Your task to perform on an android device: all mails in gmail Image 0: 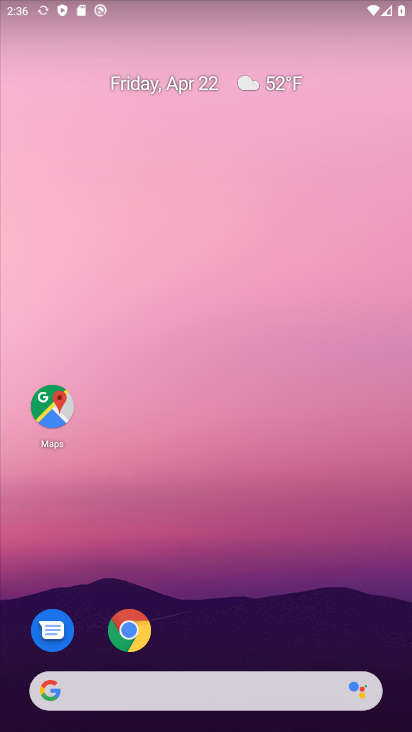
Step 0: drag from (267, 643) to (250, 116)
Your task to perform on an android device: all mails in gmail Image 1: 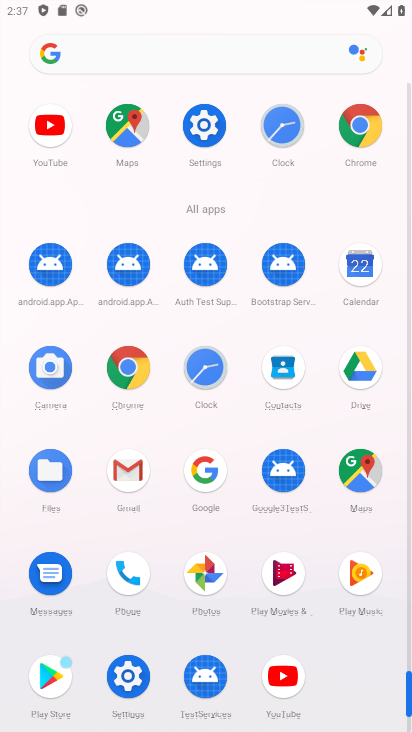
Step 1: click (123, 474)
Your task to perform on an android device: all mails in gmail Image 2: 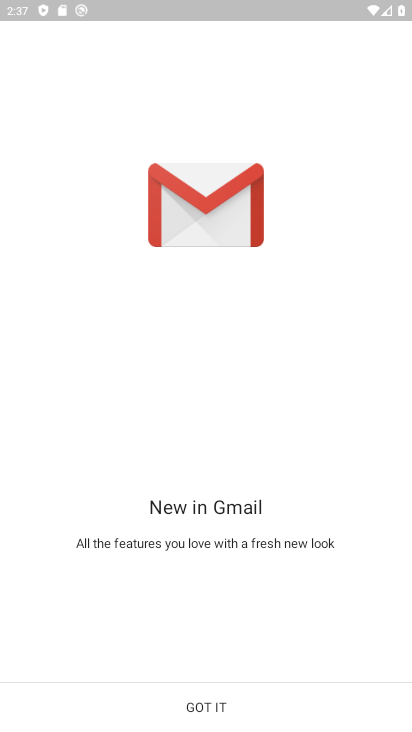
Step 2: click (192, 699)
Your task to perform on an android device: all mails in gmail Image 3: 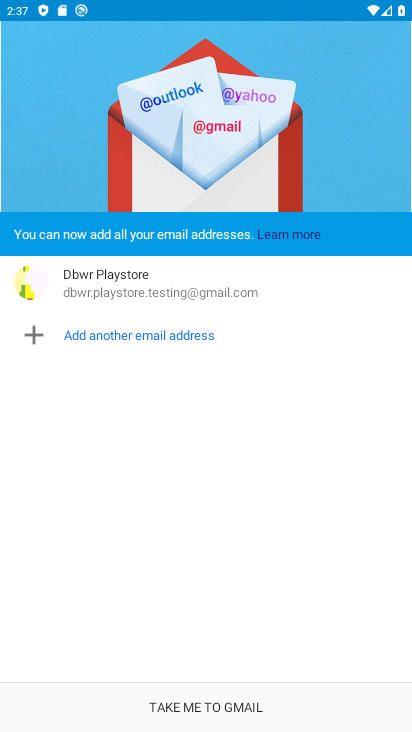
Step 3: click (192, 699)
Your task to perform on an android device: all mails in gmail Image 4: 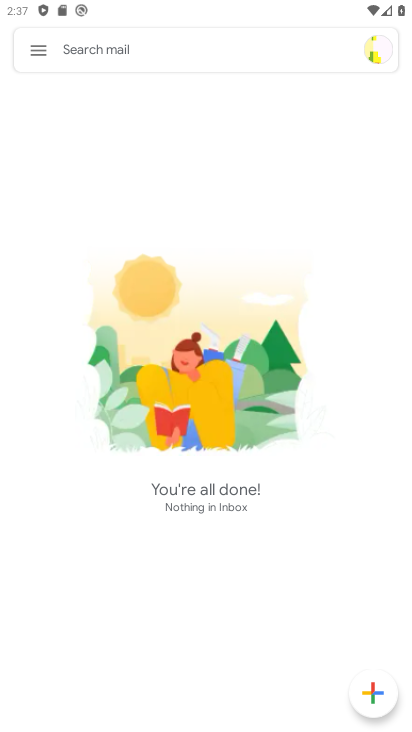
Step 4: click (29, 53)
Your task to perform on an android device: all mails in gmail Image 5: 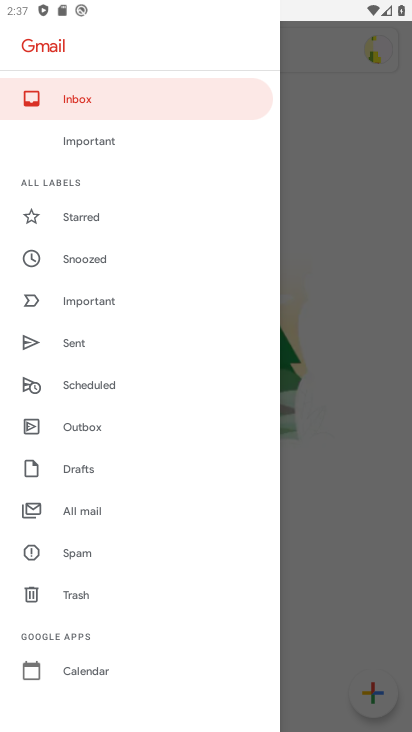
Step 5: click (76, 509)
Your task to perform on an android device: all mails in gmail Image 6: 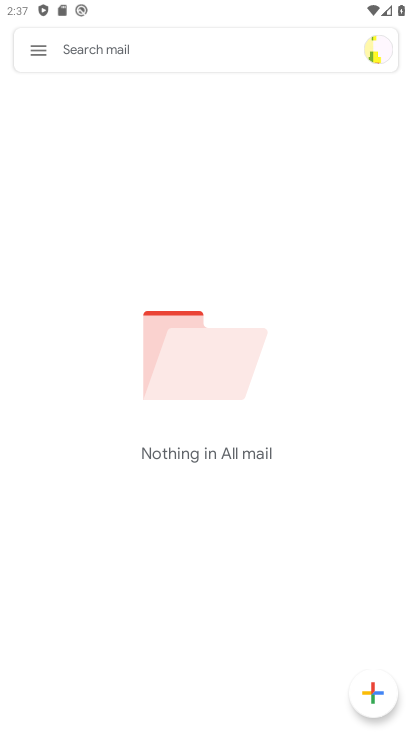
Step 6: task complete